Your task to perform on an android device: Open notification settings Image 0: 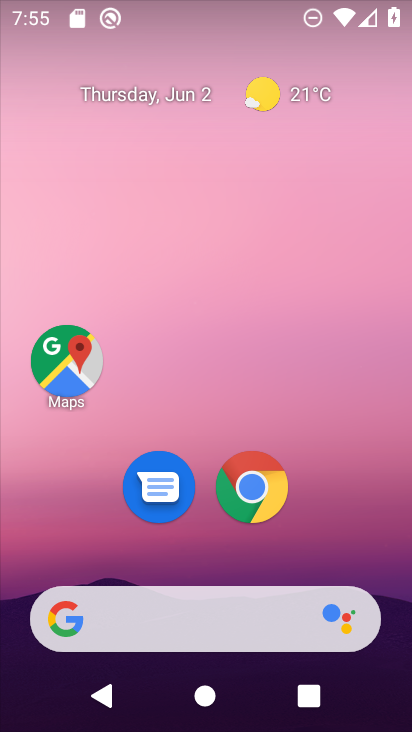
Step 0: drag from (188, 550) to (140, 115)
Your task to perform on an android device: Open notification settings Image 1: 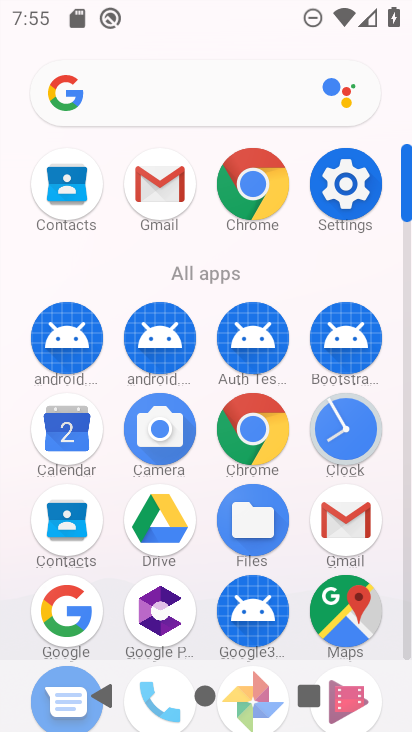
Step 1: click (342, 182)
Your task to perform on an android device: Open notification settings Image 2: 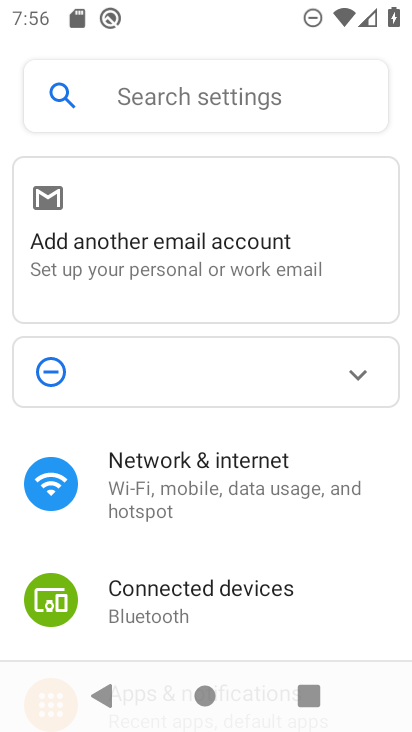
Step 2: drag from (231, 539) to (220, 180)
Your task to perform on an android device: Open notification settings Image 3: 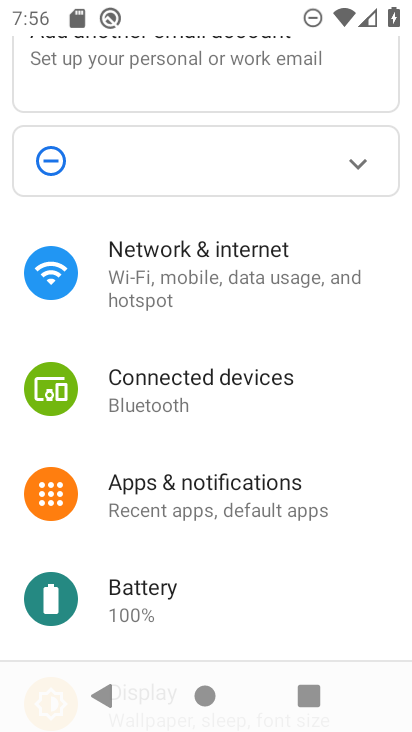
Step 3: click (227, 490)
Your task to perform on an android device: Open notification settings Image 4: 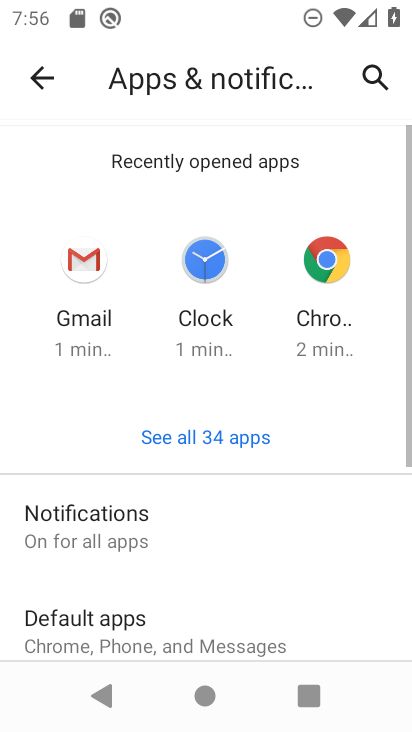
Step 4: task complete